Your task to perform on an android device: Add bose soundlink to the cart on amazon.com Image 0: 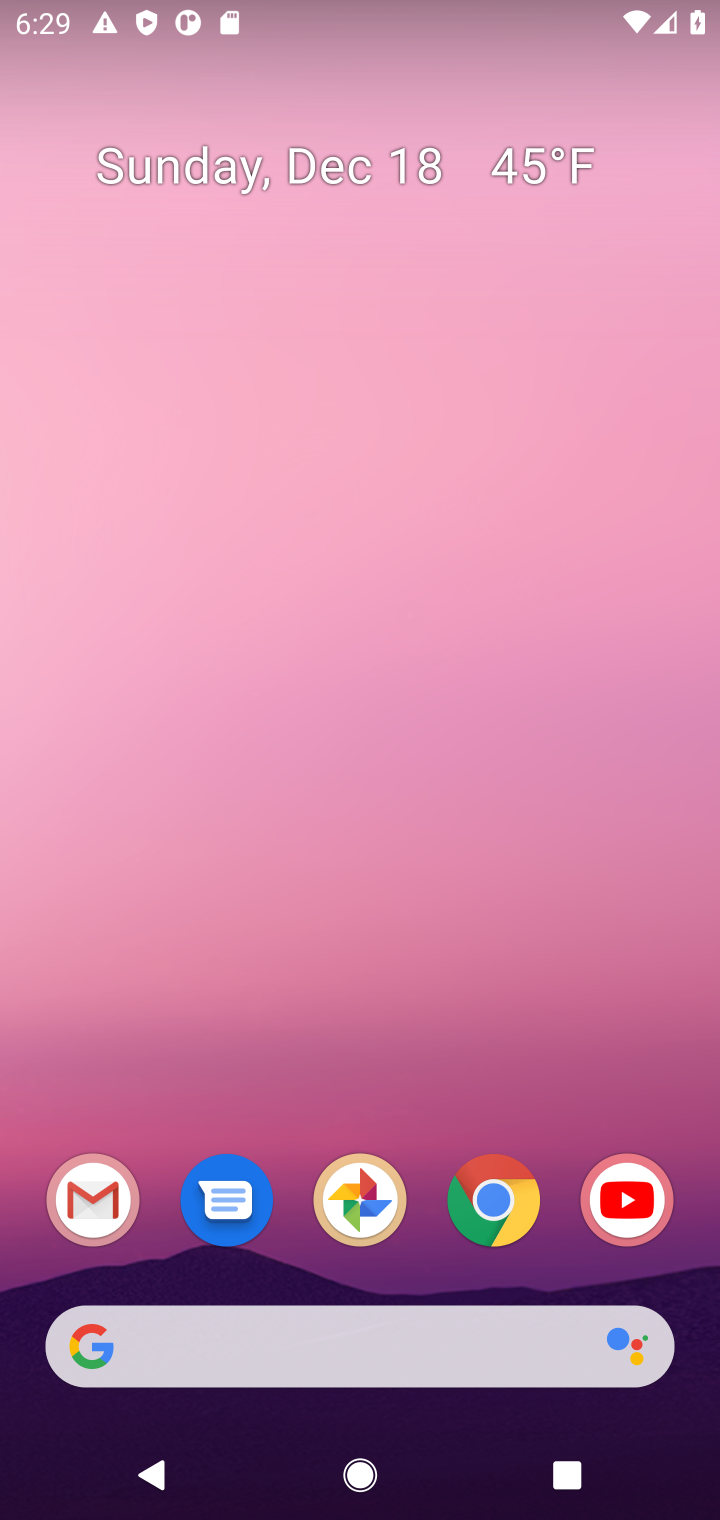
Step 0: click (503, 1220)
Your task to perform on an android device: Add bose soundlink to the cart on amazon.com Image 1: 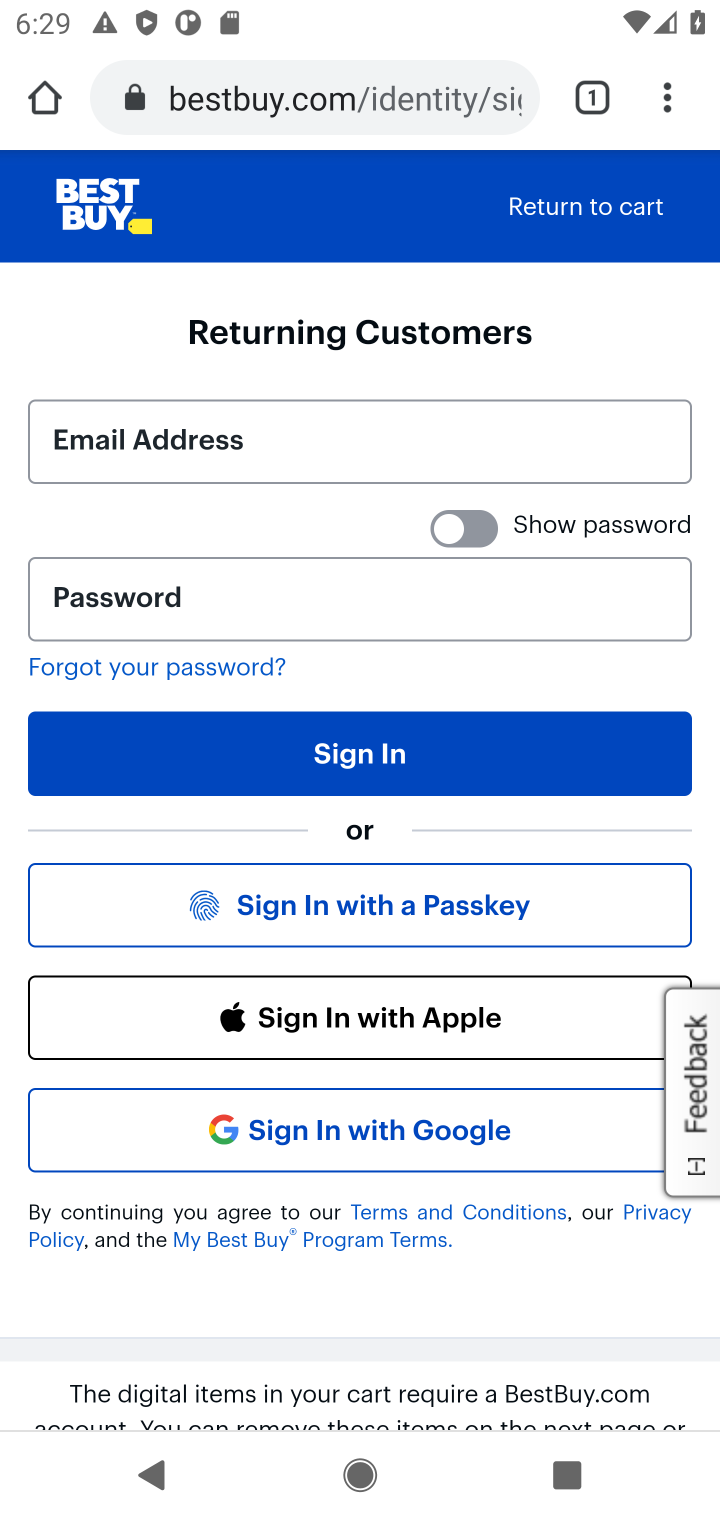
Step 1: click (256, 110)
Your task to perform on an android device: Add bose soundlink to the cart on amazon.com Image 2: 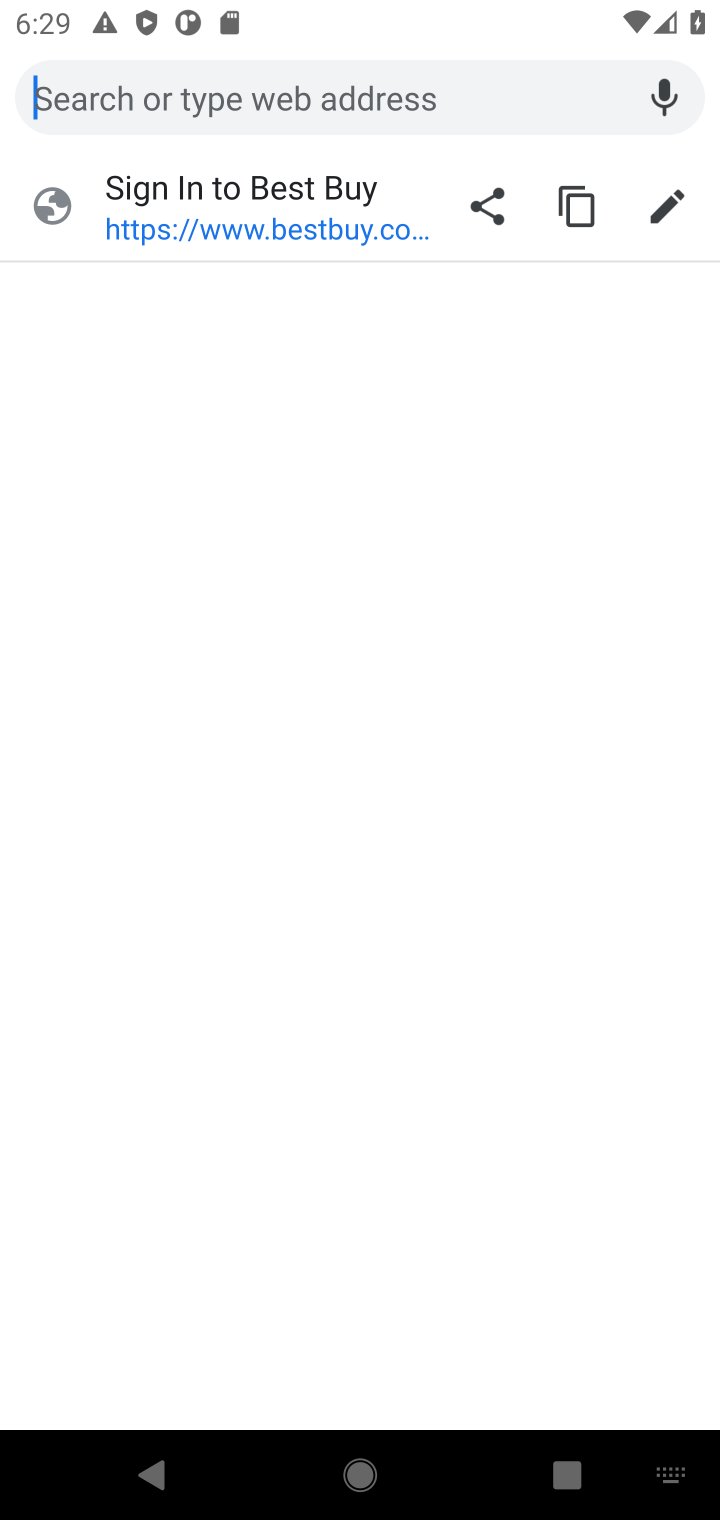
Step 2: type "amazon.com"
Your task to perform on an android device: Add bose soundlink to the cart on amazon.com Image 3: 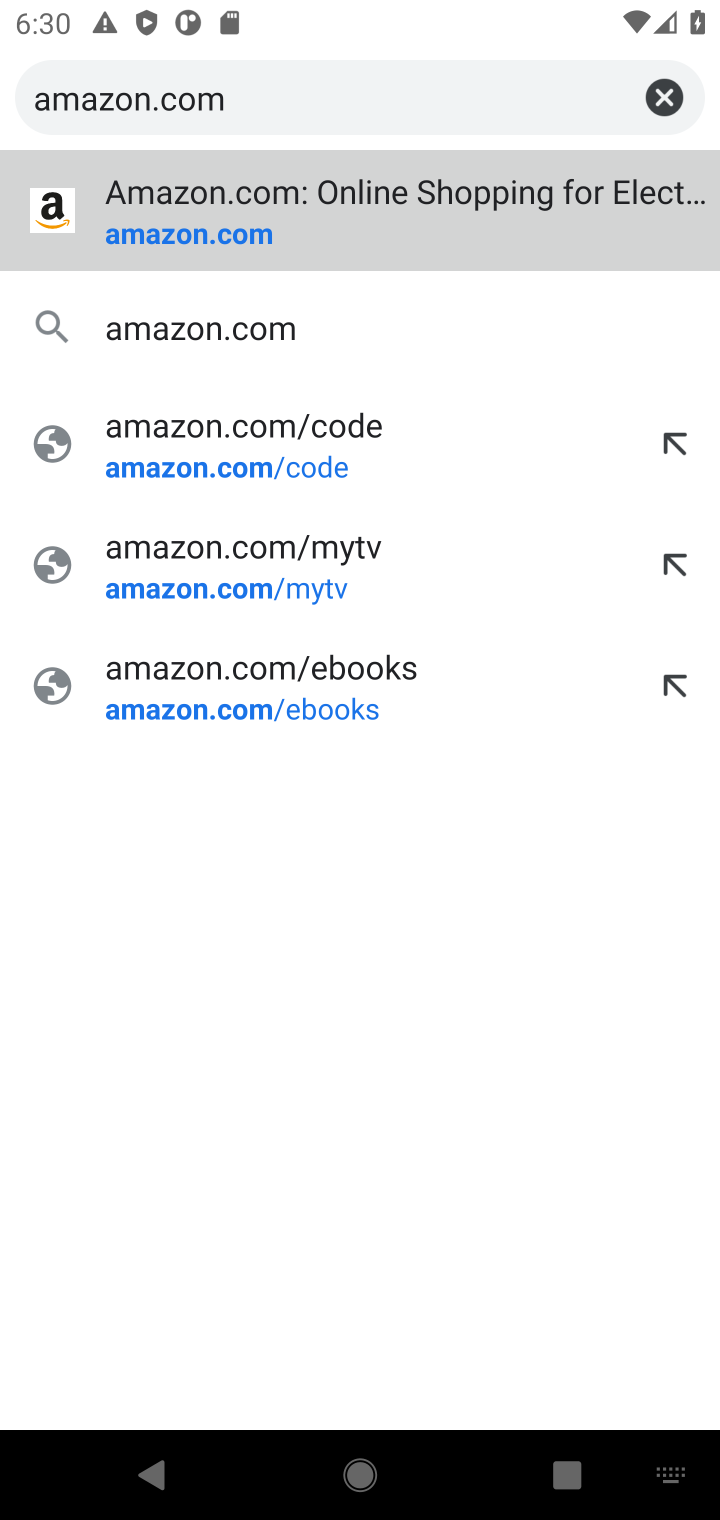
Step 3: click (150, 244)
Your task to perform on an android device: Add bose soundlink to the cart on amazon.com Image 4: 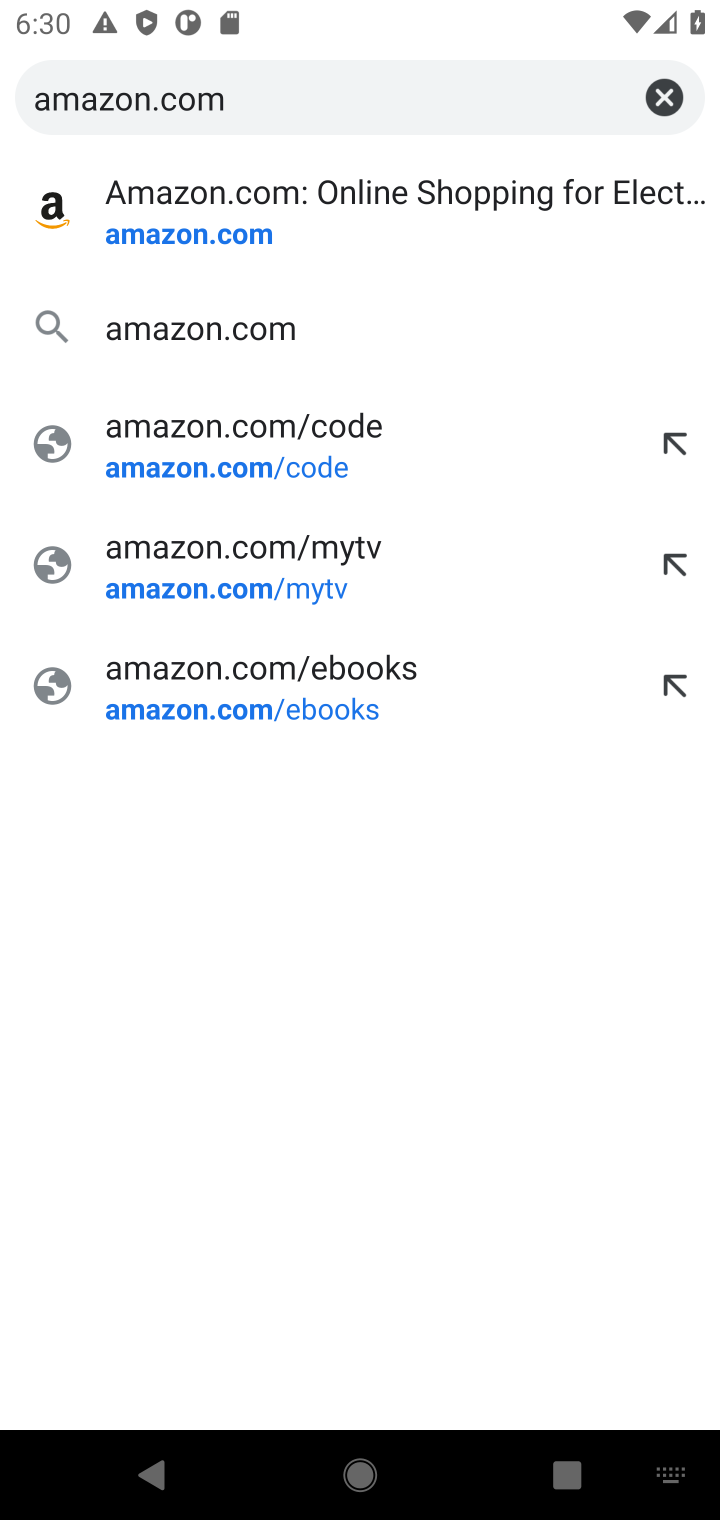
Step 4: click (150, 244)
Your task to perform on an android device: Add bose soundlink to the cart on amazon.com Image 5: 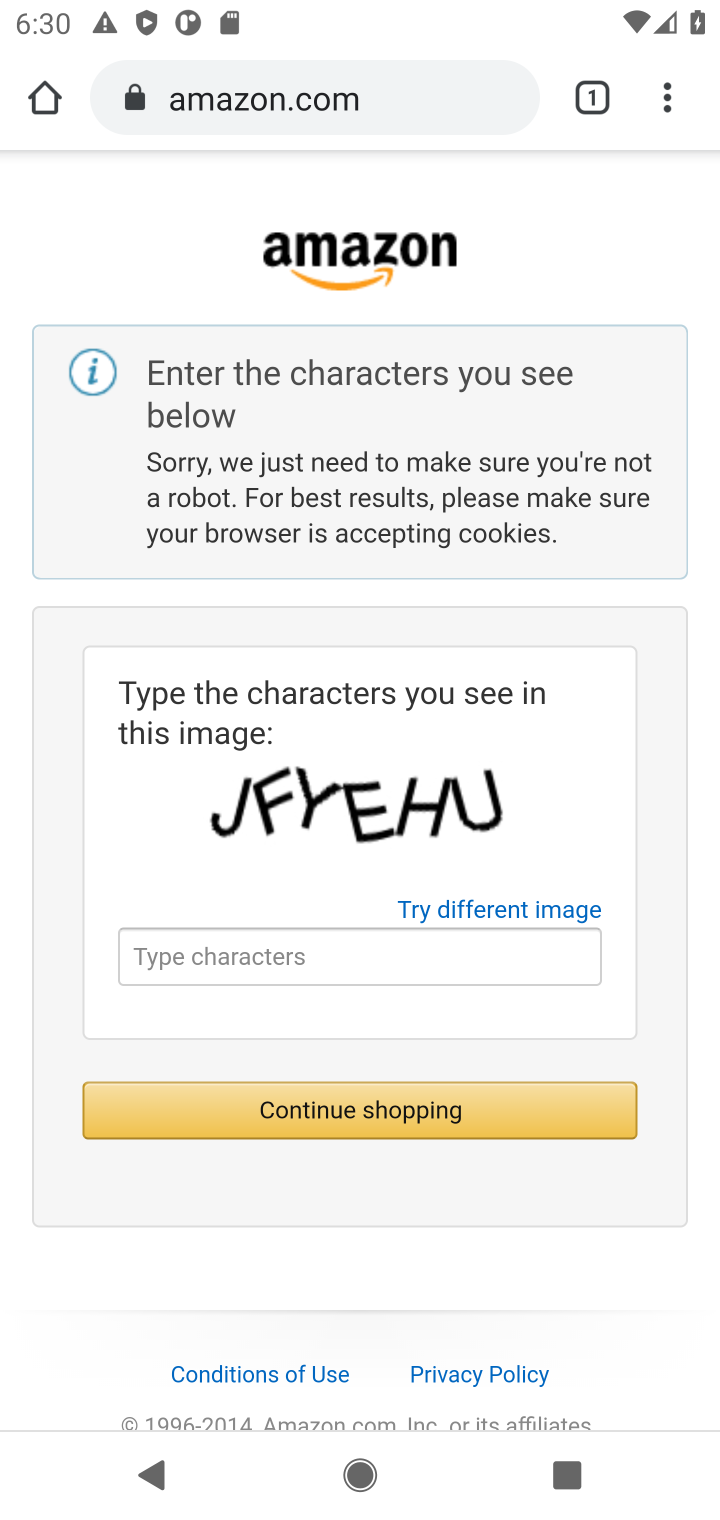
Step 5: click (226, 961)
Your task to perform on an android device: Add bose soundlink to the cart on amazon.com Image 6: 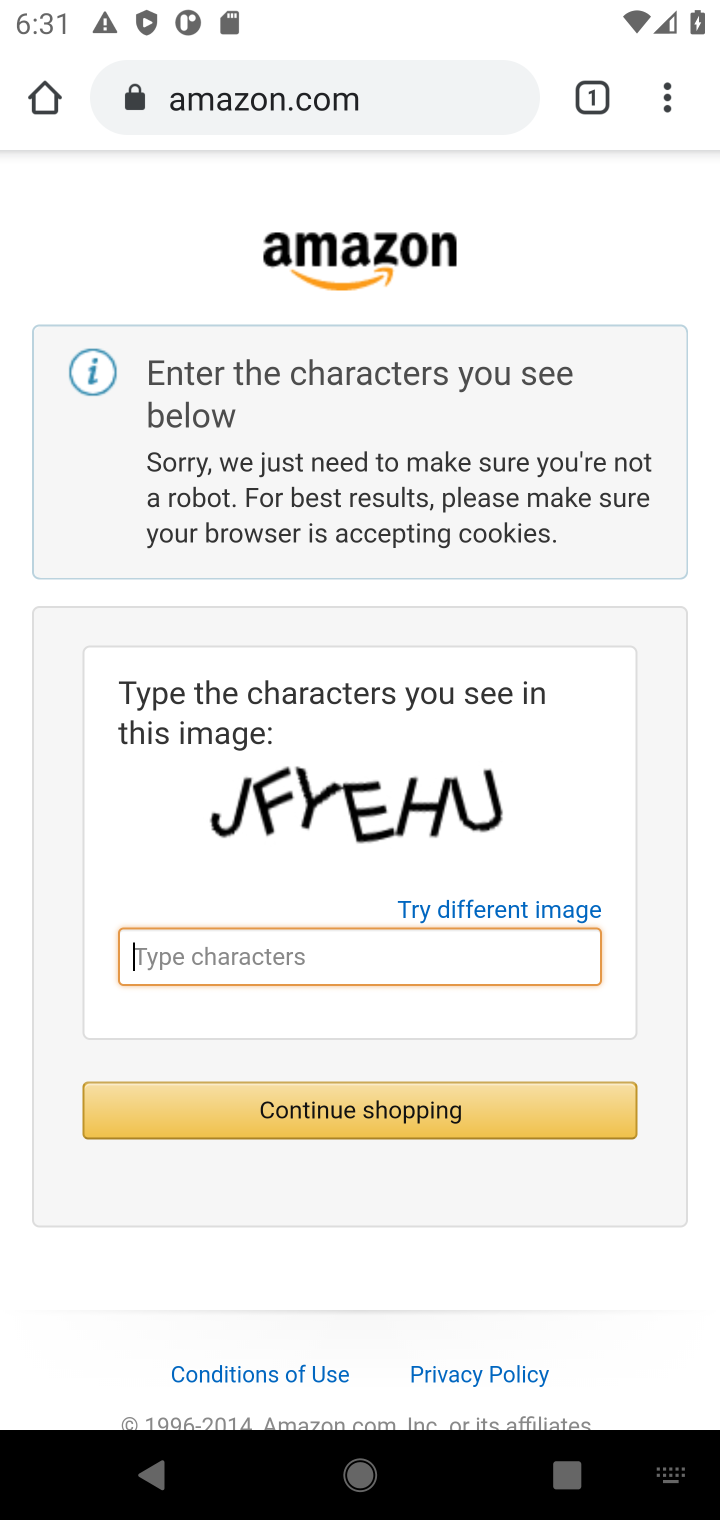
Step 6: type "JFYEHU"
Your task to perform on an android device: Add bose soundlink to the cart on amazon.com Image 7: 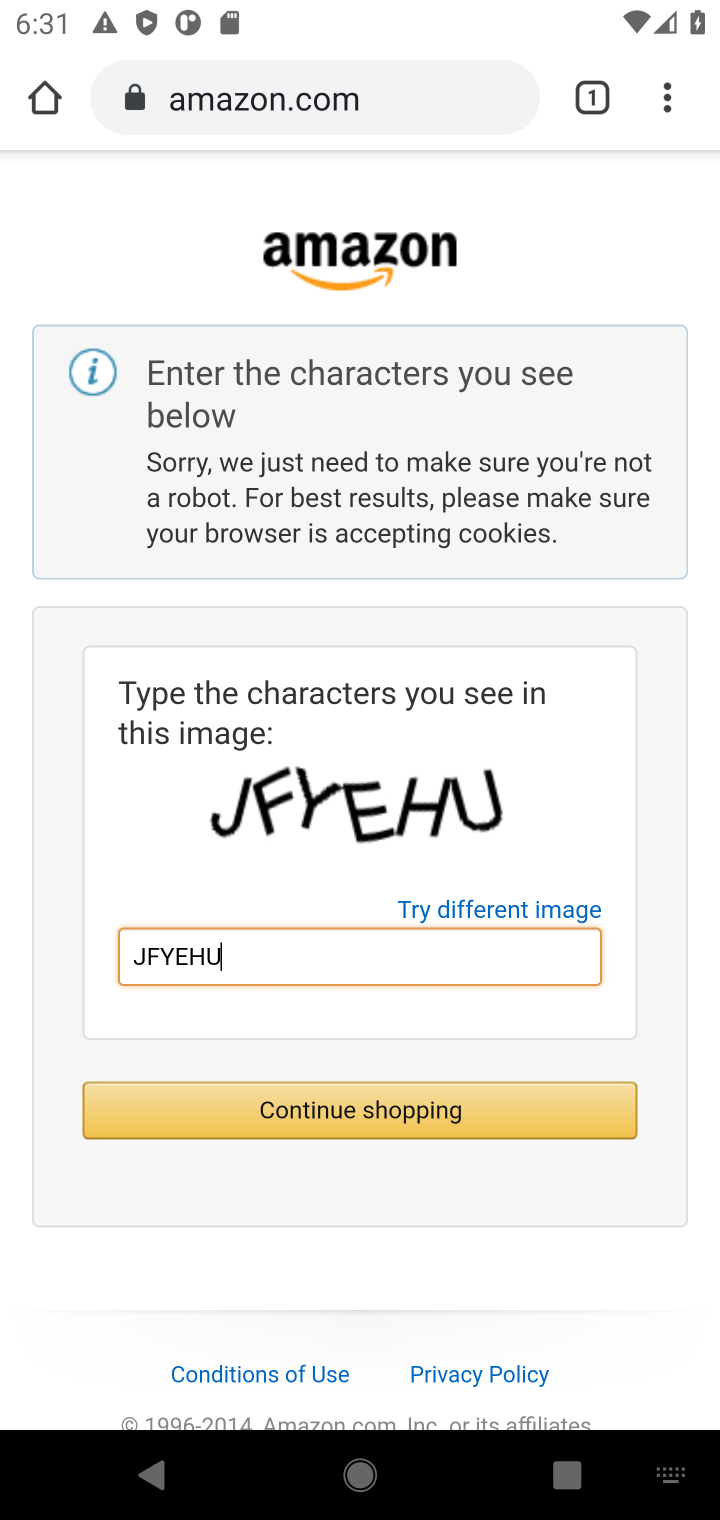
Step 7: click (459, 1127)
Your task to perform on an android device: Add bose soundlink to the cart on amazon.com Image 8: 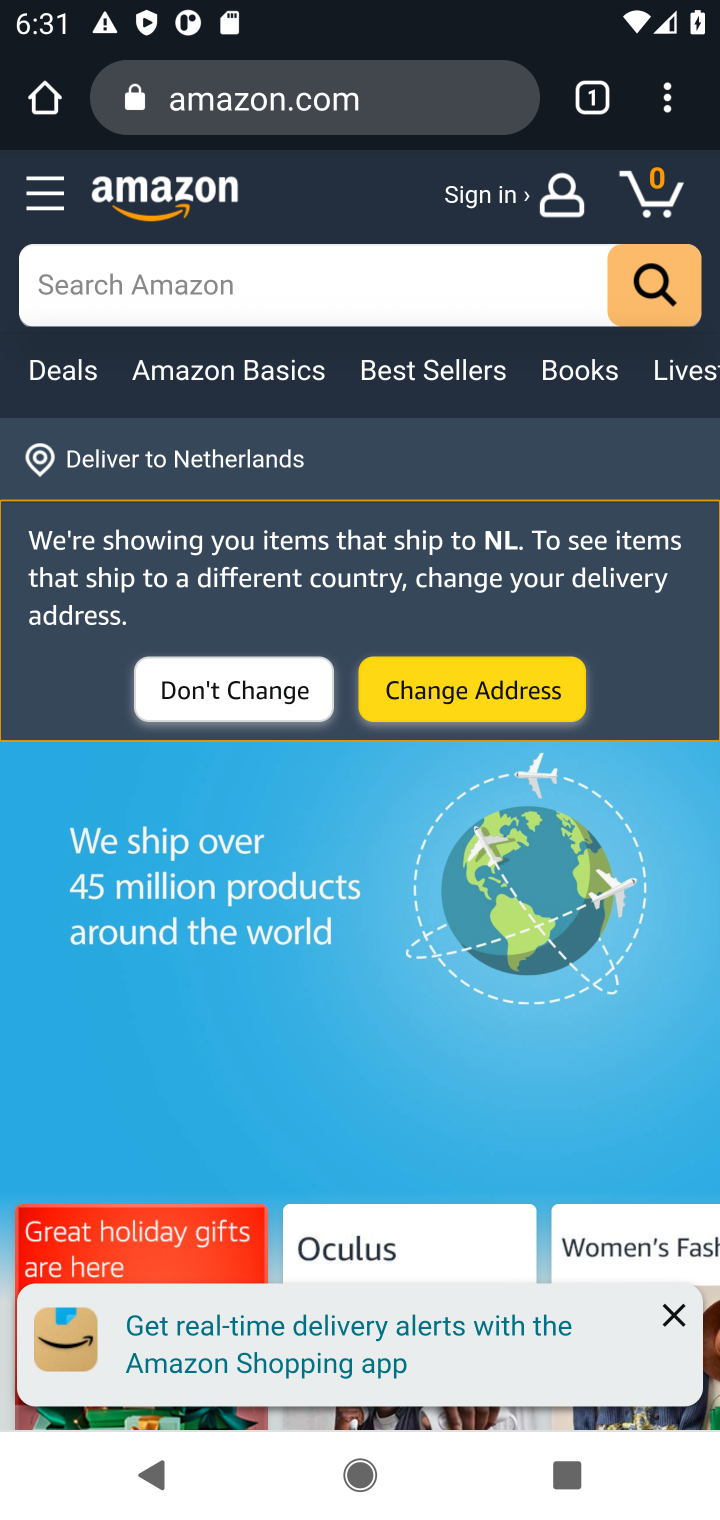
Step 8: click (152, 260)
Your task to perform on an android device: Add bose soundlink to the cart on amazon.com Image 9: 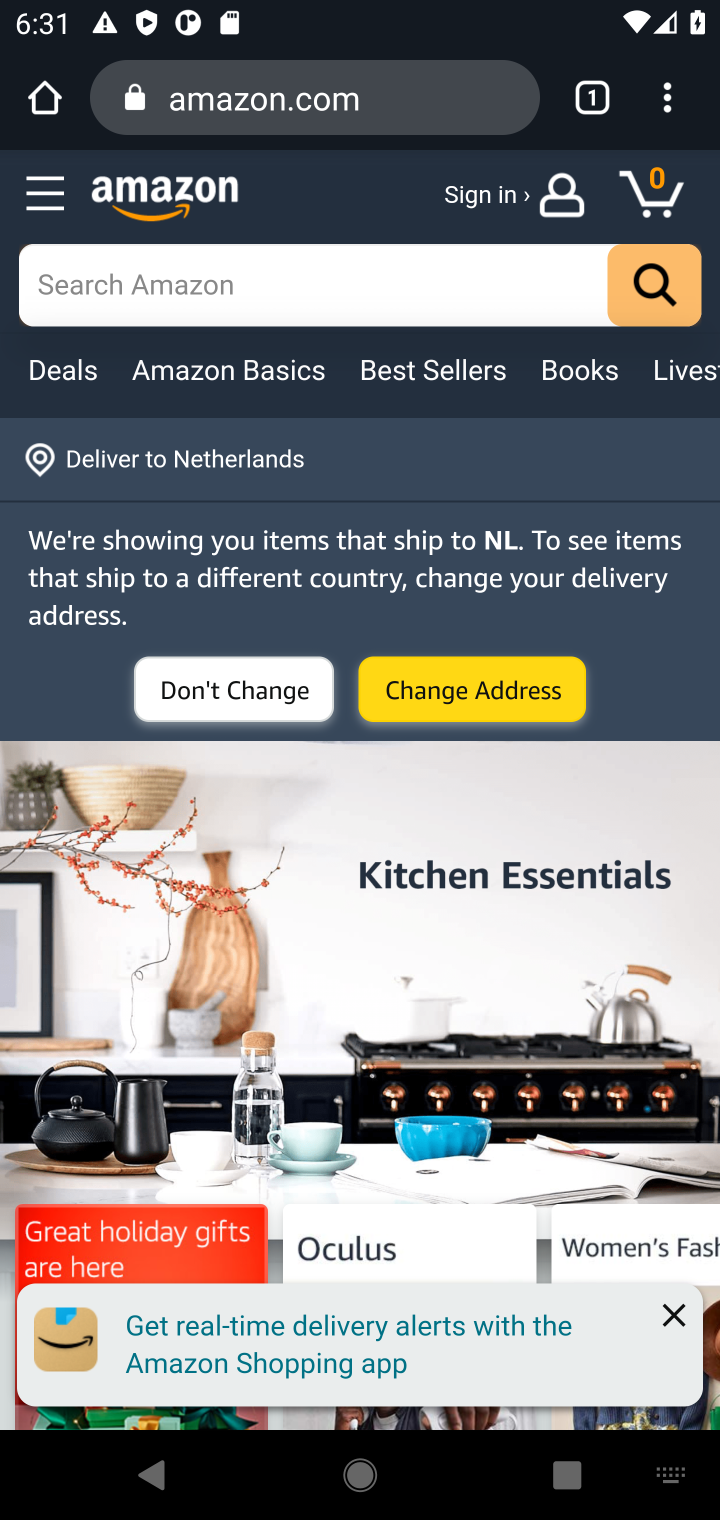
Step 9: type " bose soundlink"
Your task to perform on an android device: Add bose soundlink to the cart on amazon.com Image 10: 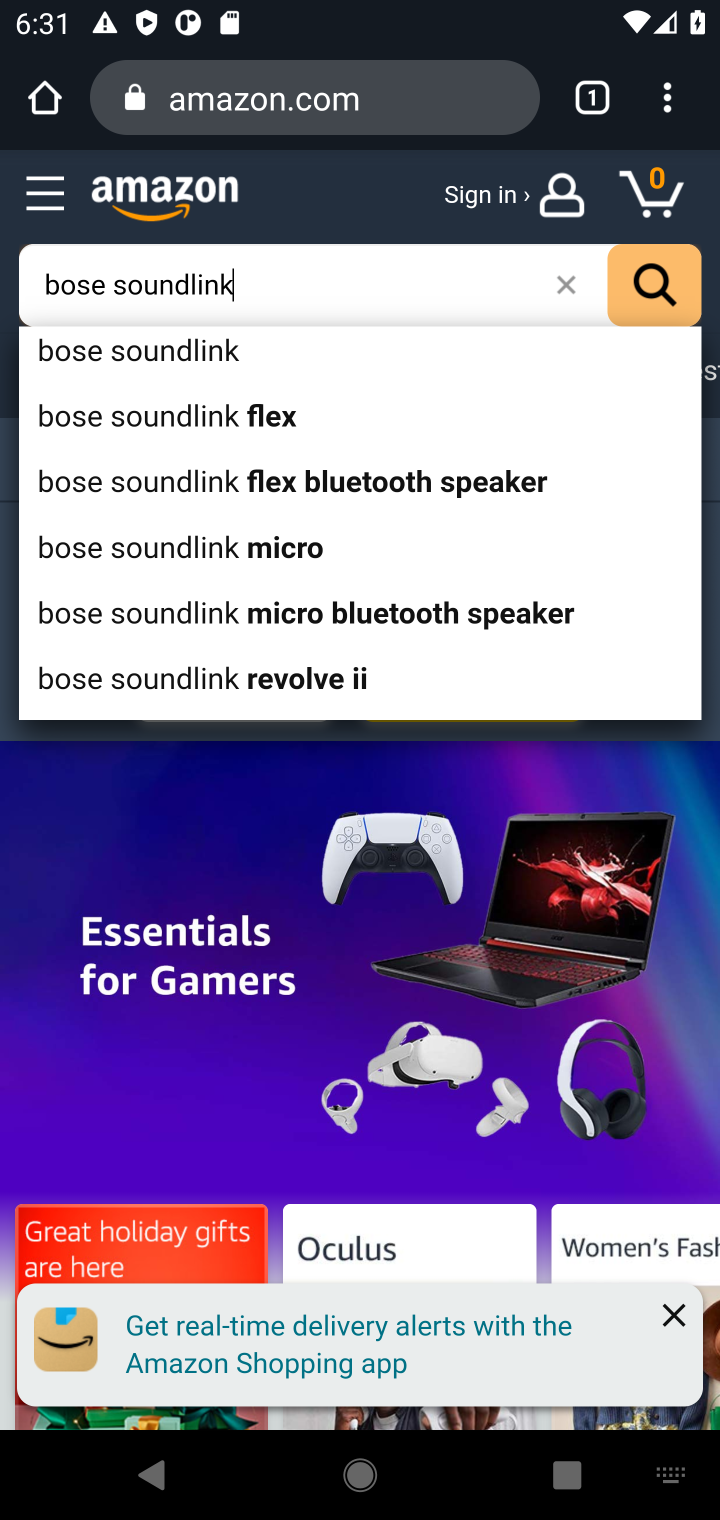
Step 10: click (226, 364)
Your task to perform on an android device: Add bose soundlink to the cart on amazon.com Image 11: 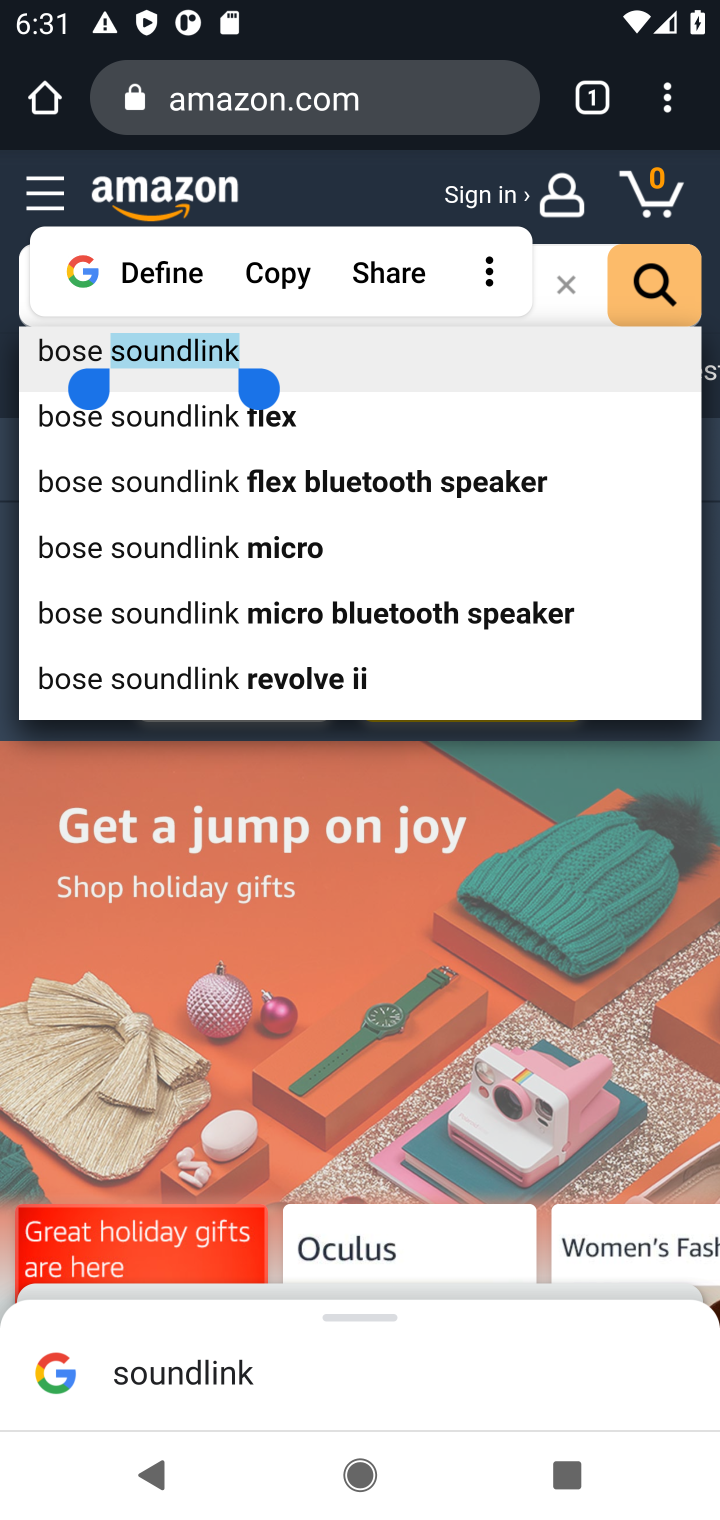
Step 11: click (149, 356)
Your task to perform on an android device: Add bose soundlink to the cart on amazon.com Image 12: 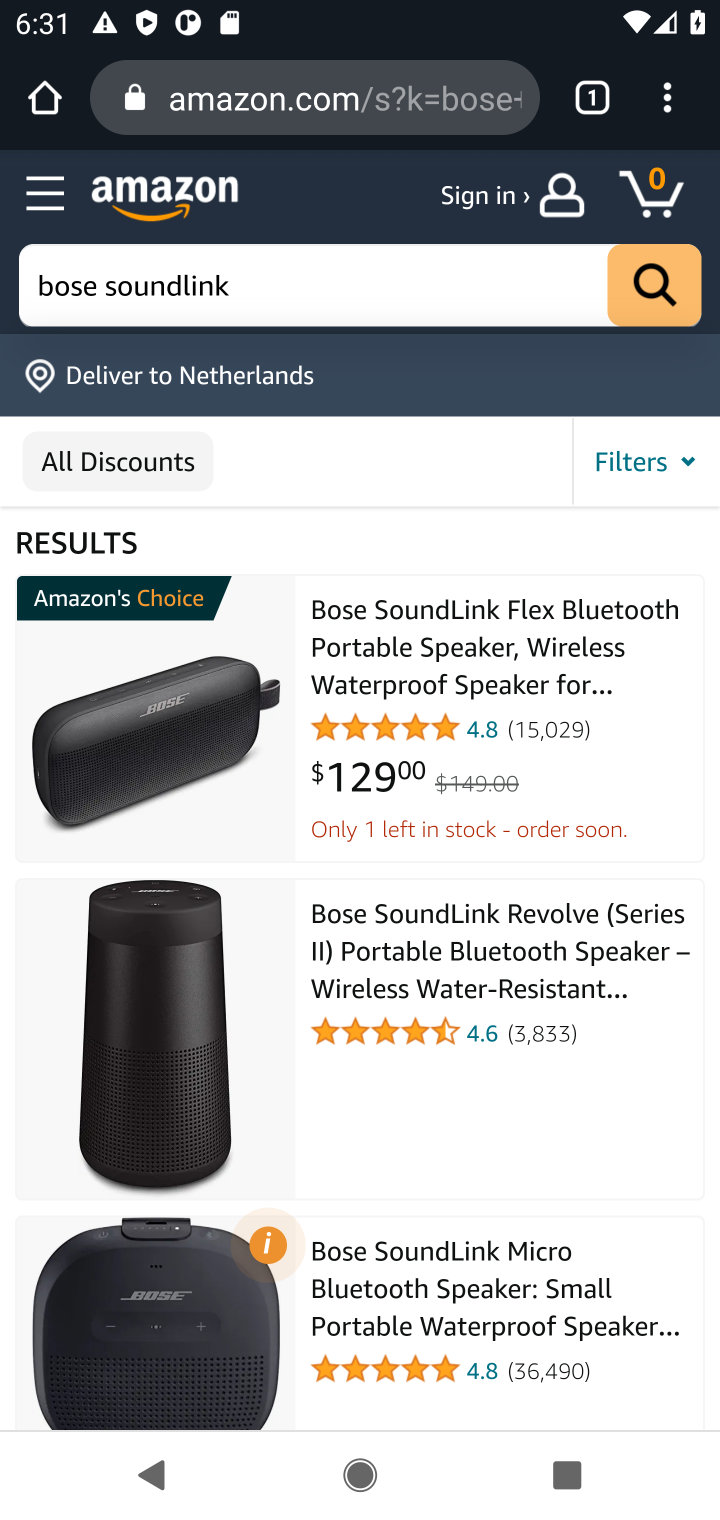
Step 12: click (356, 674)
Your task to perform on an android device: Add bose soundlink to the cart on amazon.com Image 13: 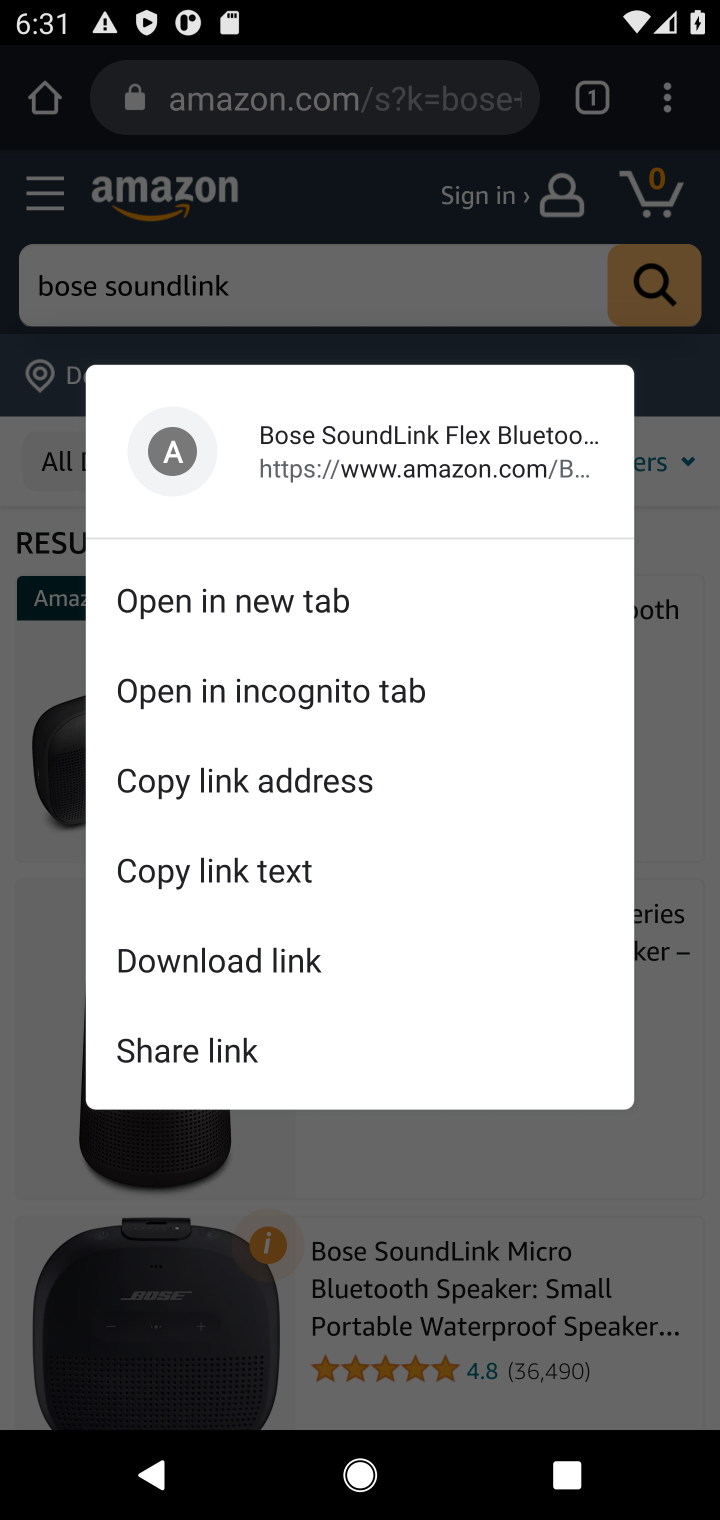
Step 13: click (687, 724)
Your task to perform on an android device: Add bose soundlink to the cart on amazon.com Image 14: 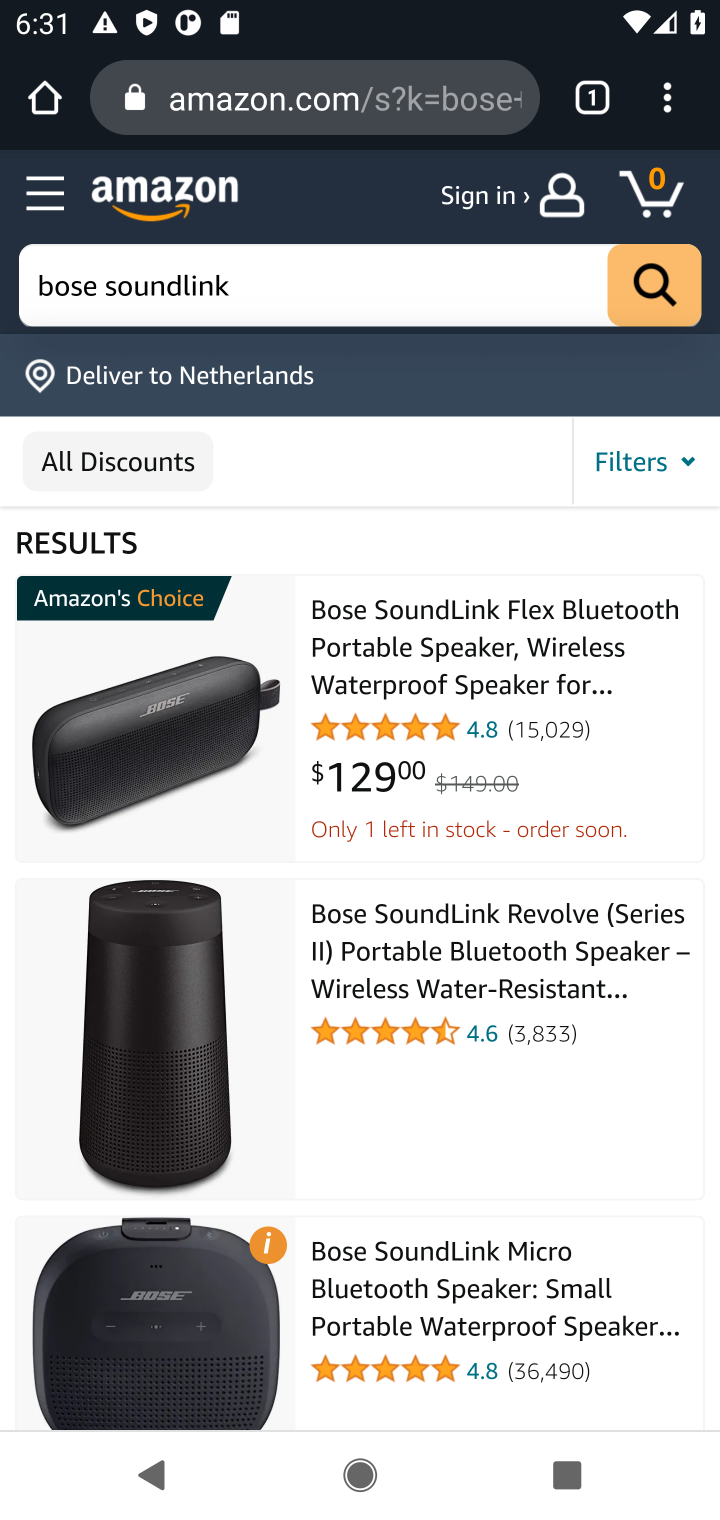
Step 14: click (492, 637)
Your task to perform on an android device: Add bose soundlink to the cart on amazon.com Image 15: 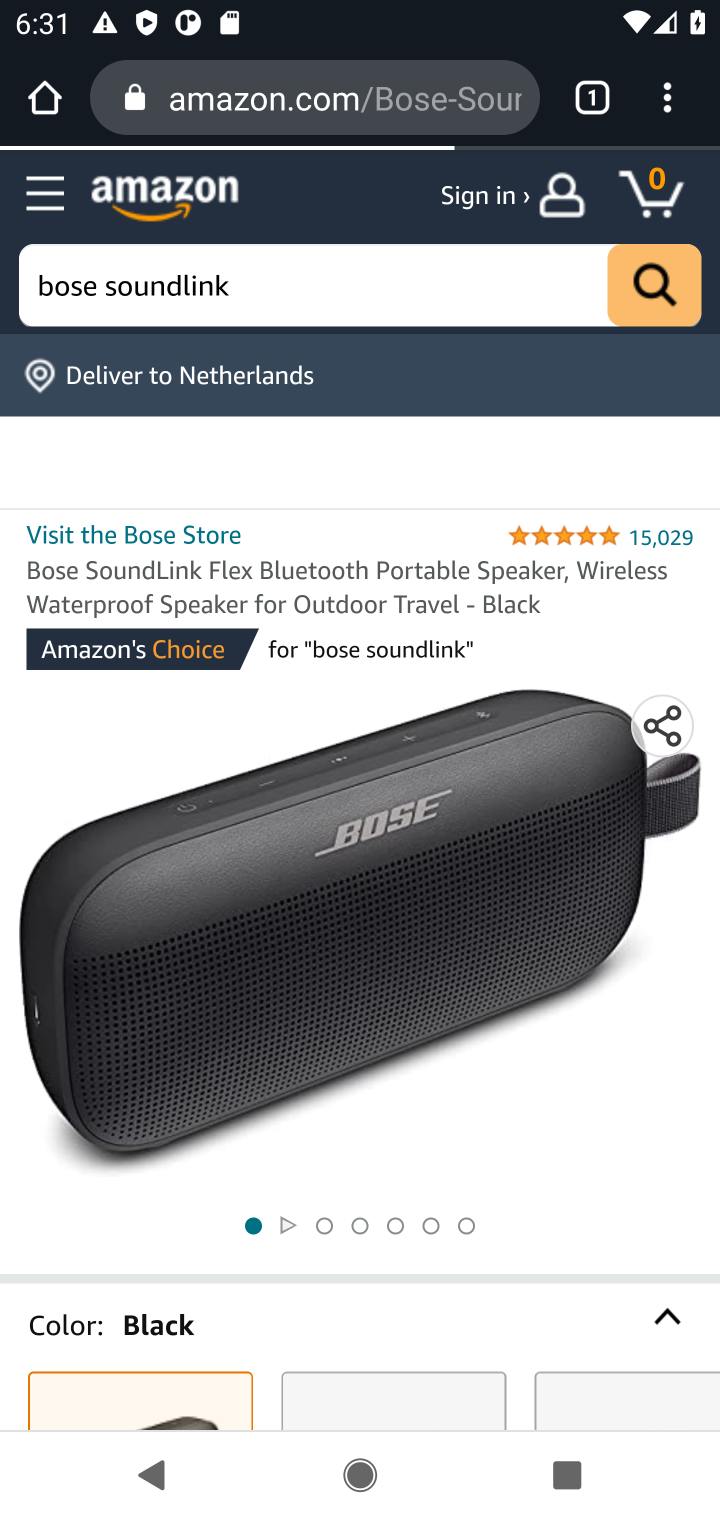
Step 15: drag from (444, 1282) to (460, 623)
Your task to perform on an android device: Add bose soundlink to the cart on amazon.com Image 16: 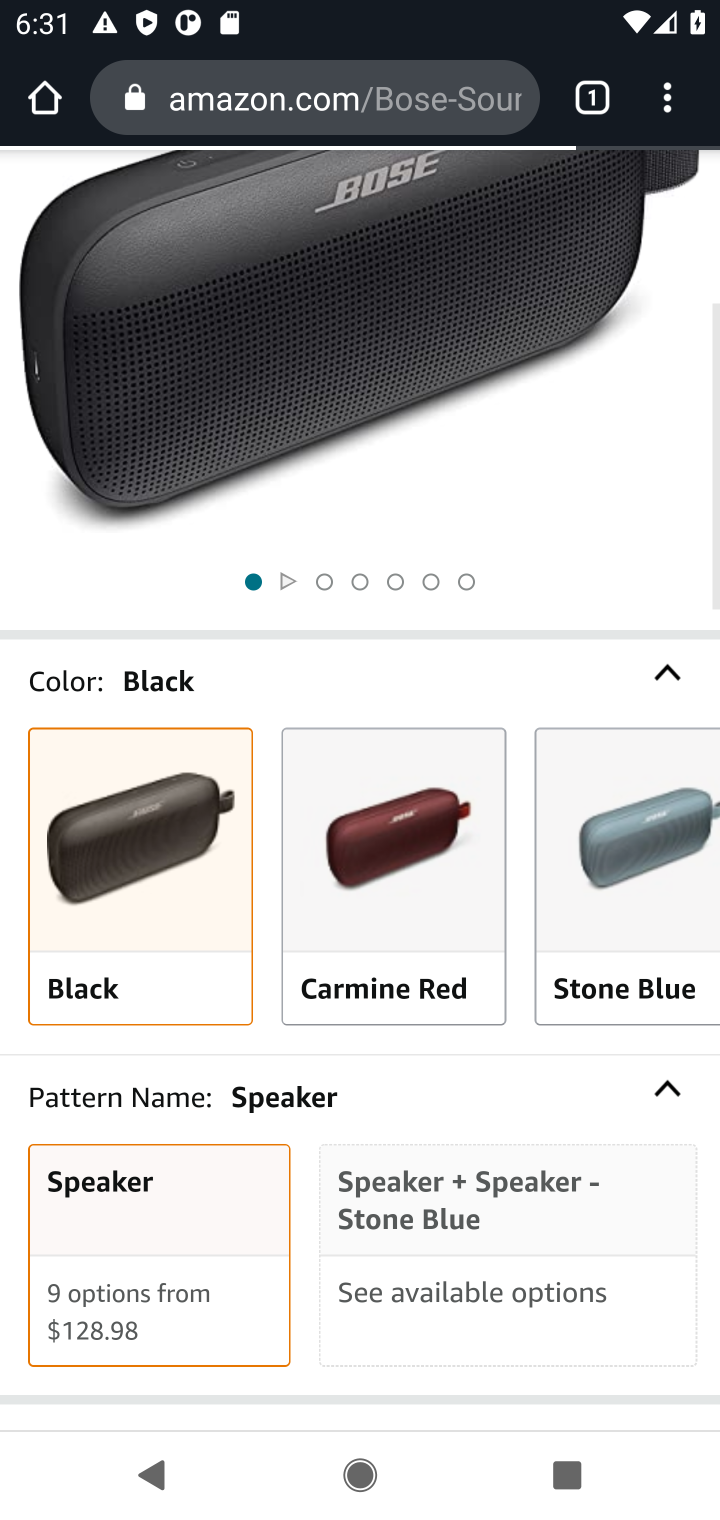
Step 16: drag from (410, 1211) to (414, 610)
Your task to perform on an android device: Add bose soundlink to the cart on amazon.com Image 17: 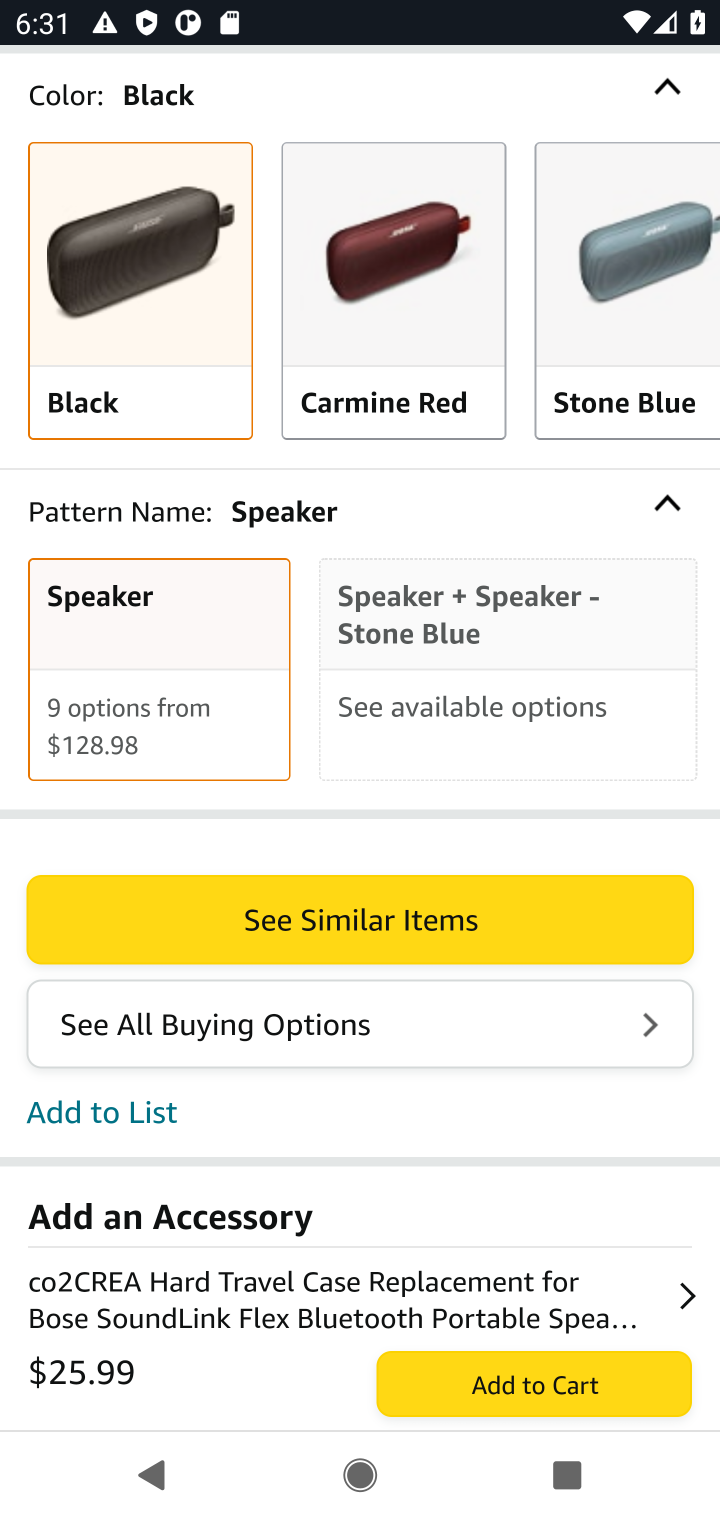
Step 17: press back button
Your task to perform on an android device: Add bose soundlink to the cart on amazon.com Image 18: 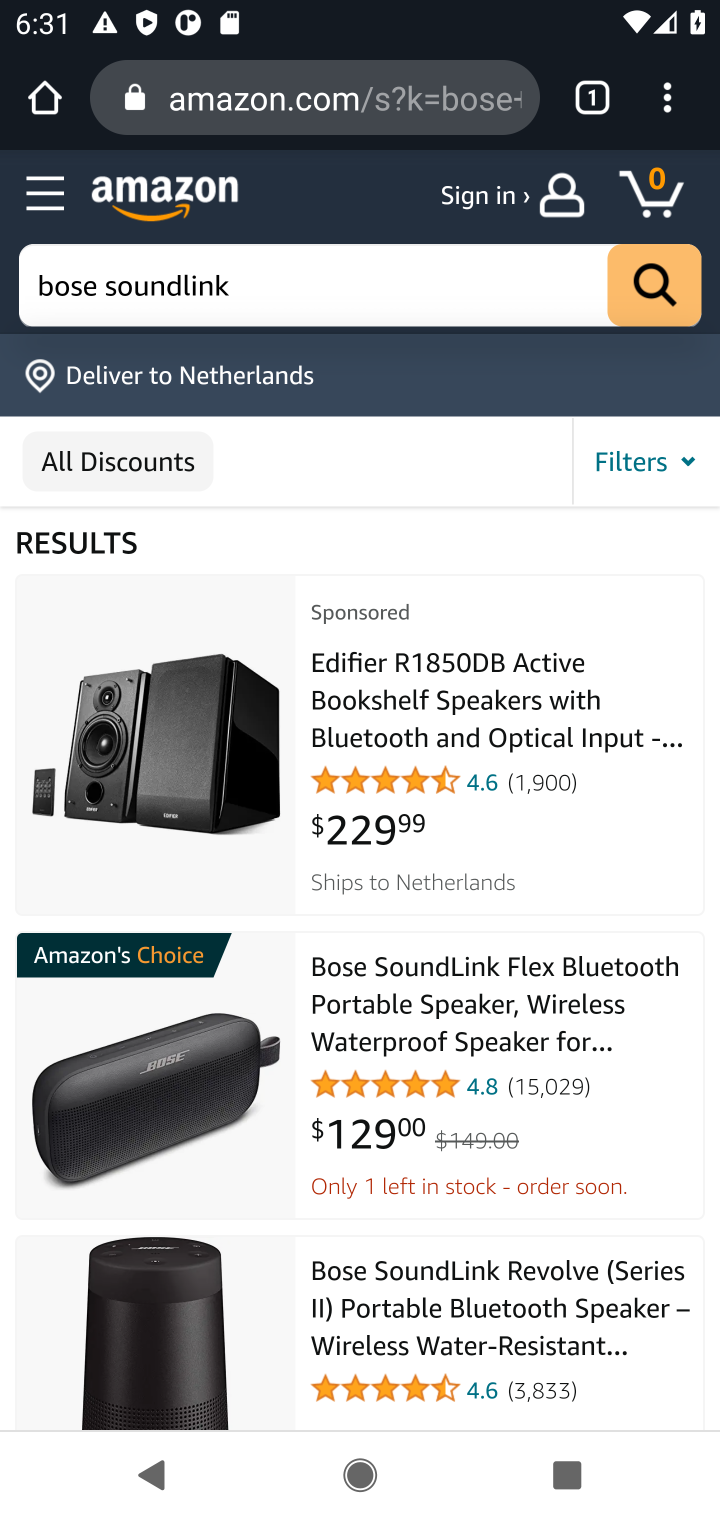
Step 18: drag from (251, 1101) to (228, 748)
Your task to perform on an android device: Add bose soundlink to the cart on amazon.com Image 19: 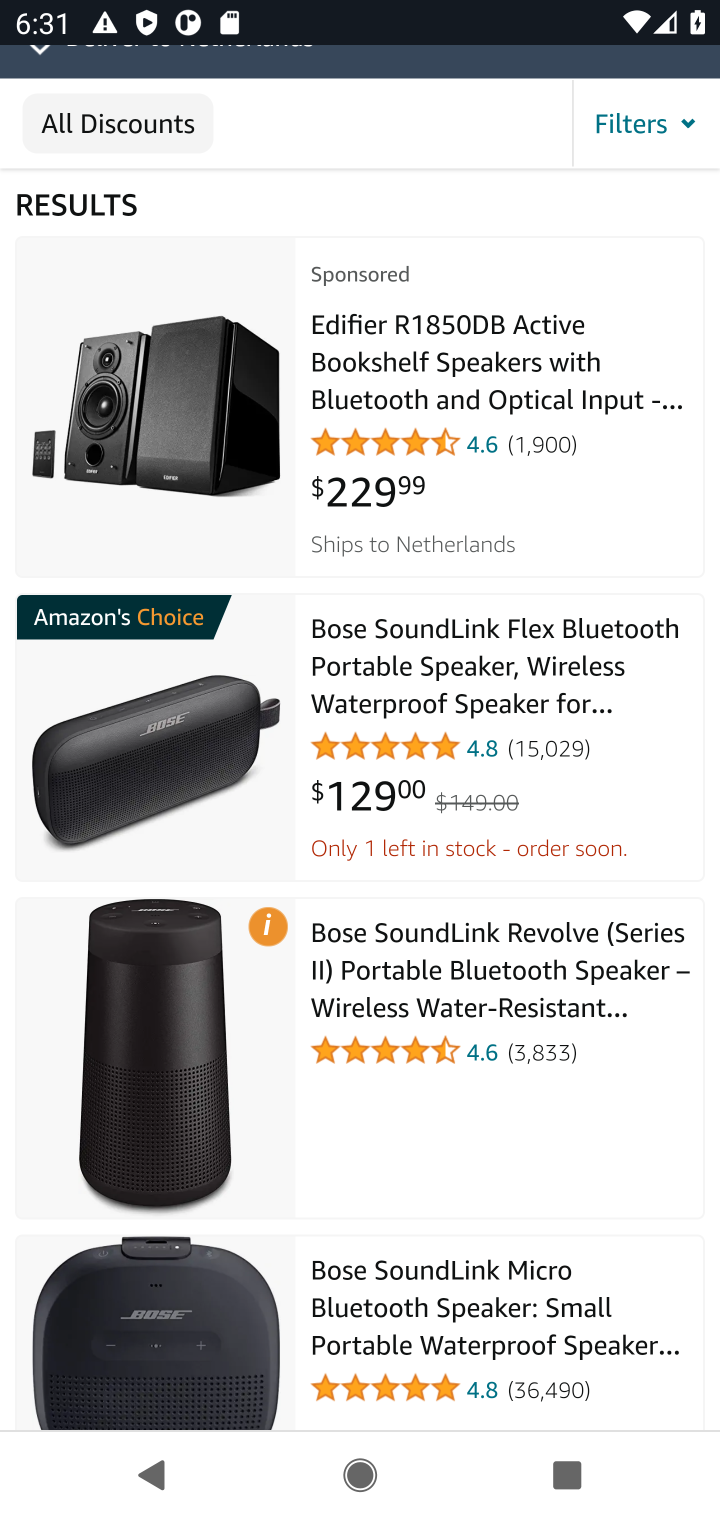
Step 19: drag from (231, 838) to (194, 1135)
Your task to perform on an android device: Add bose soundlink to the cart on amazon.com Image 20: 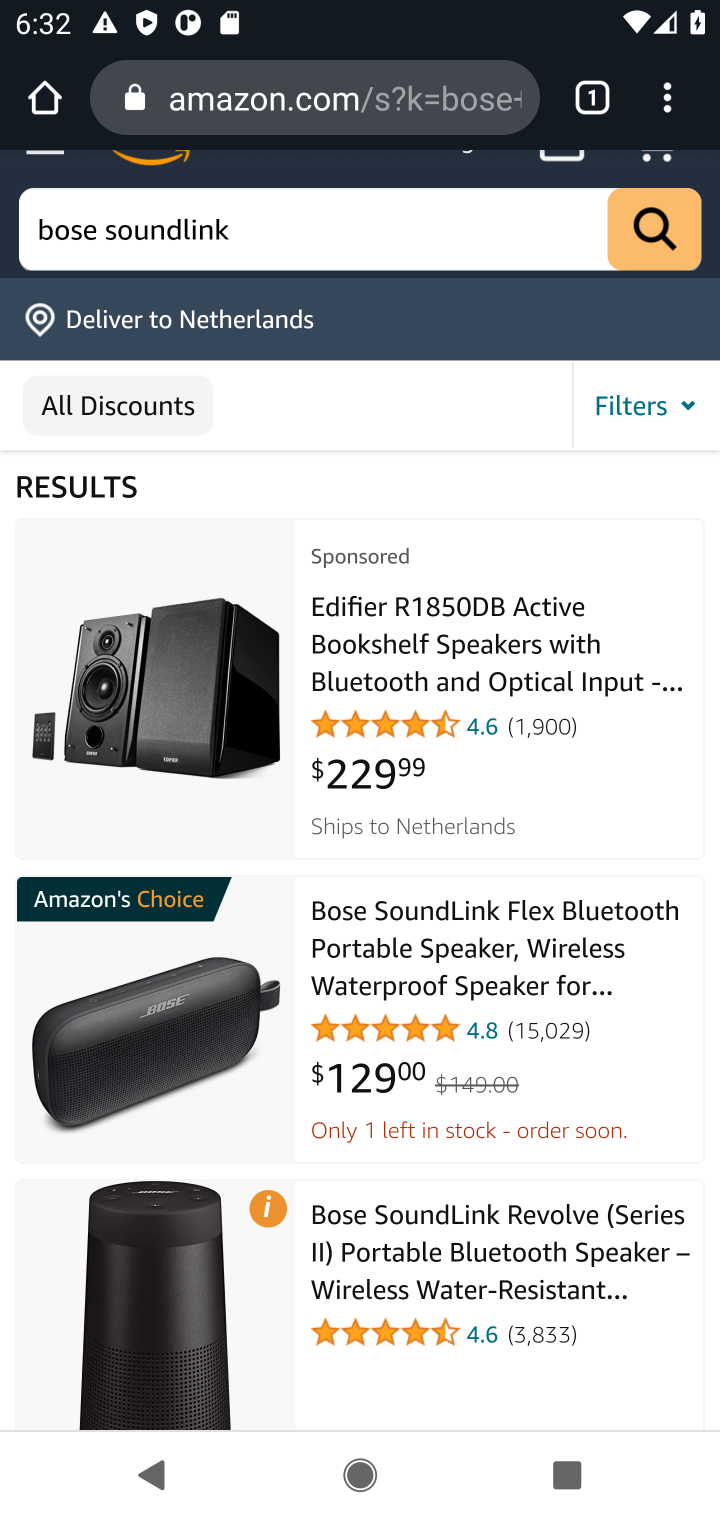
Step 20: drag from (269, 1139) to (314, 591)
Your task to perform on an android device: Add bose soundlink to the cart on amazon.com Image 21: 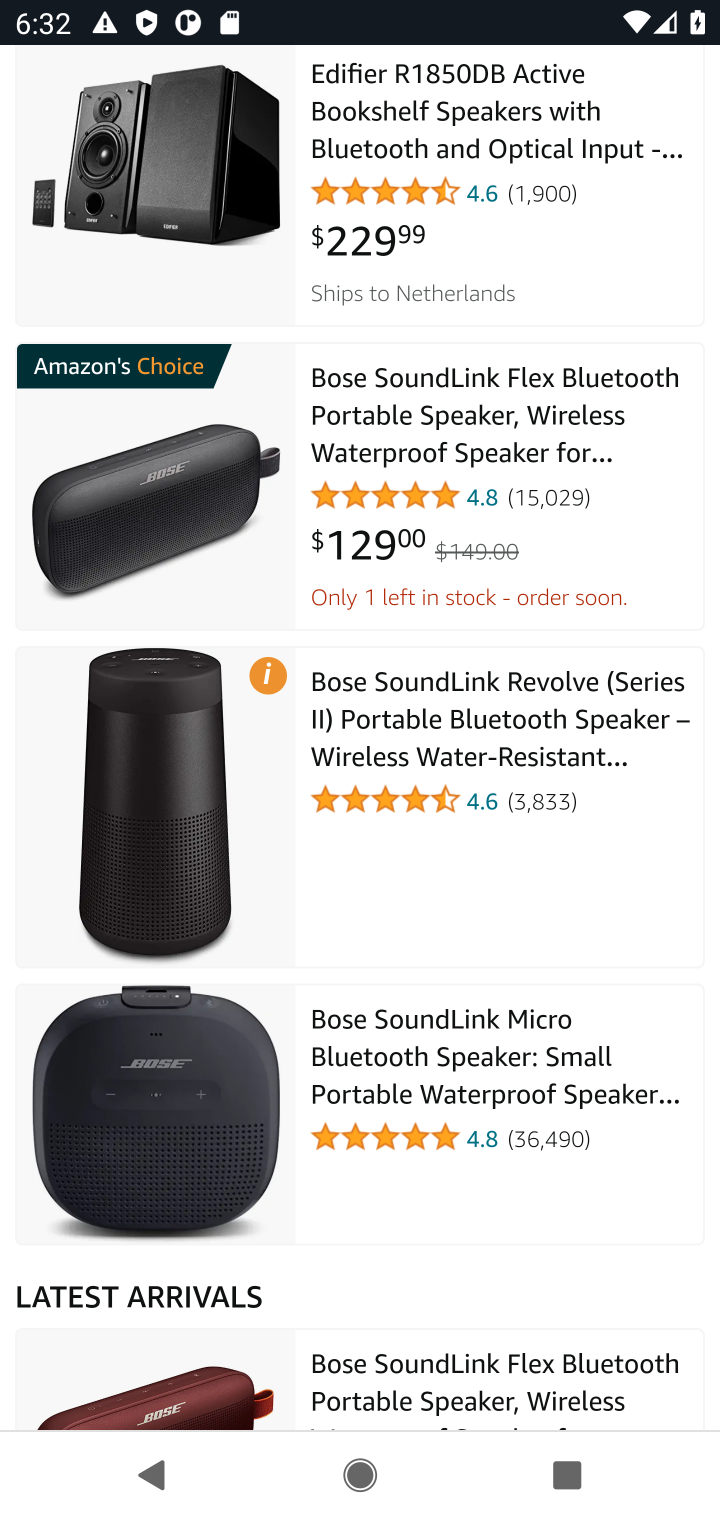
Step 21: drag from (282, 816) to (282, 459)
Your task to perform on an android device: Add bose soundlink to the cart on amazon.com Image 22: 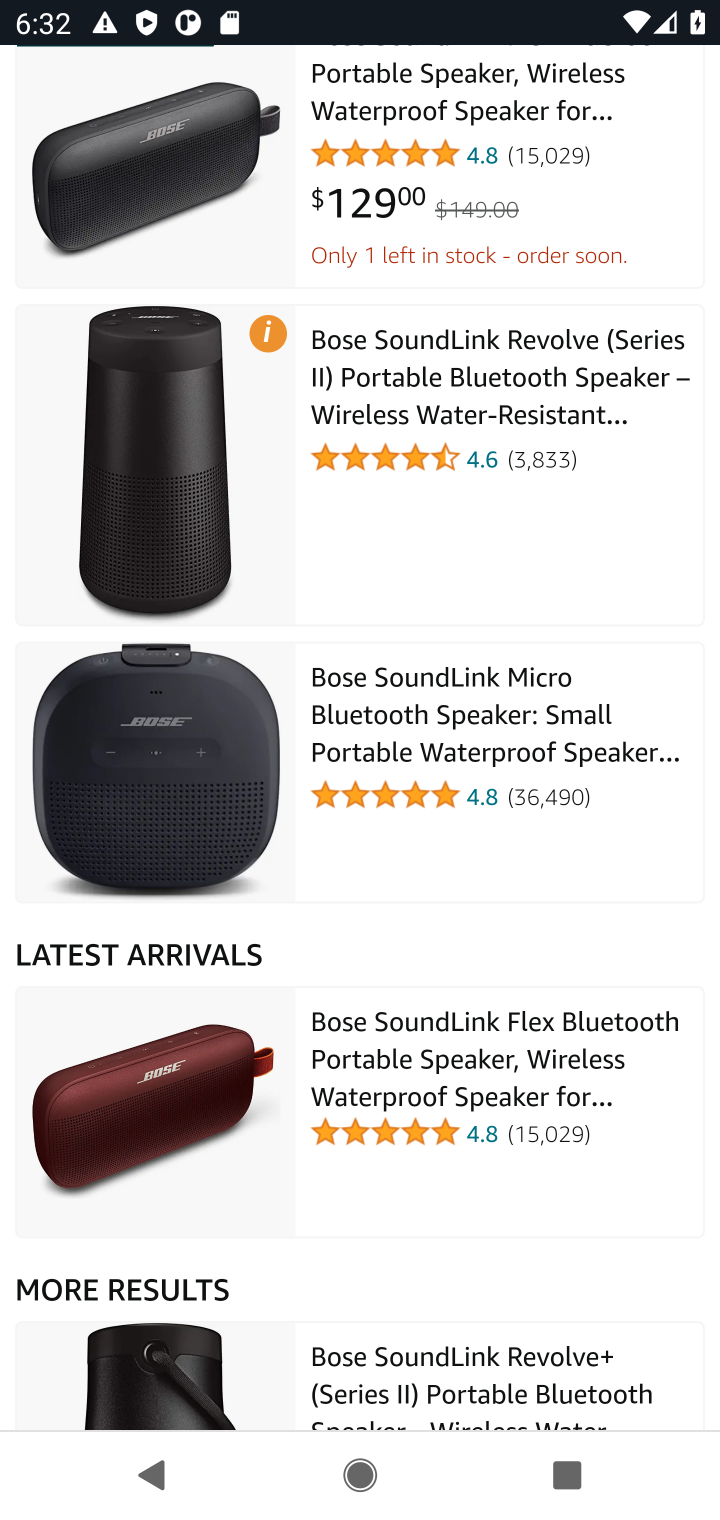
Step 22: drag from (240, 946) to (252, 557)
Your task to perform on an android device: Add bose soundlink to the cart on amazon.com Image 23: 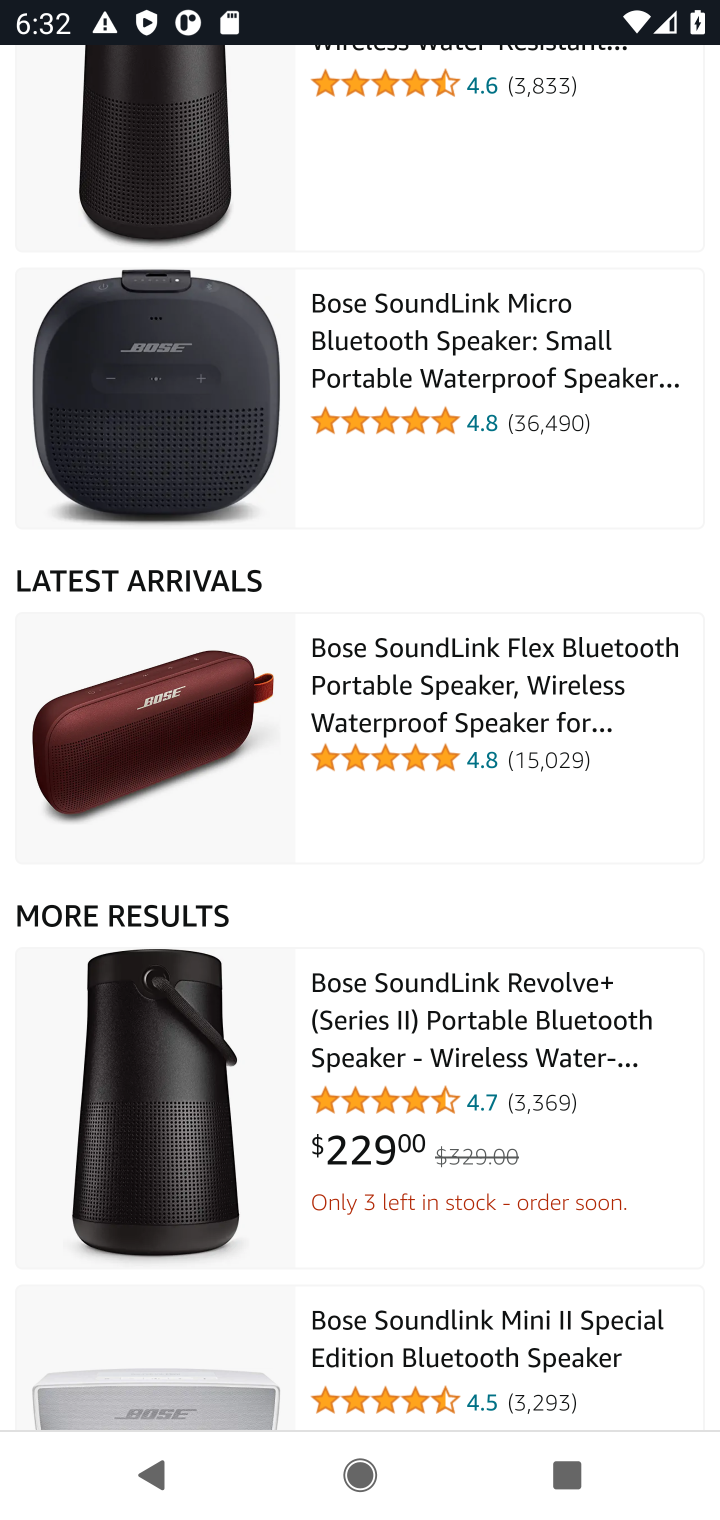
Step 23: drag from (240, 1164) to (268, 499)
Your task to perform on an android device: Add bose soundlink to the cart on amazon.com Image 24: 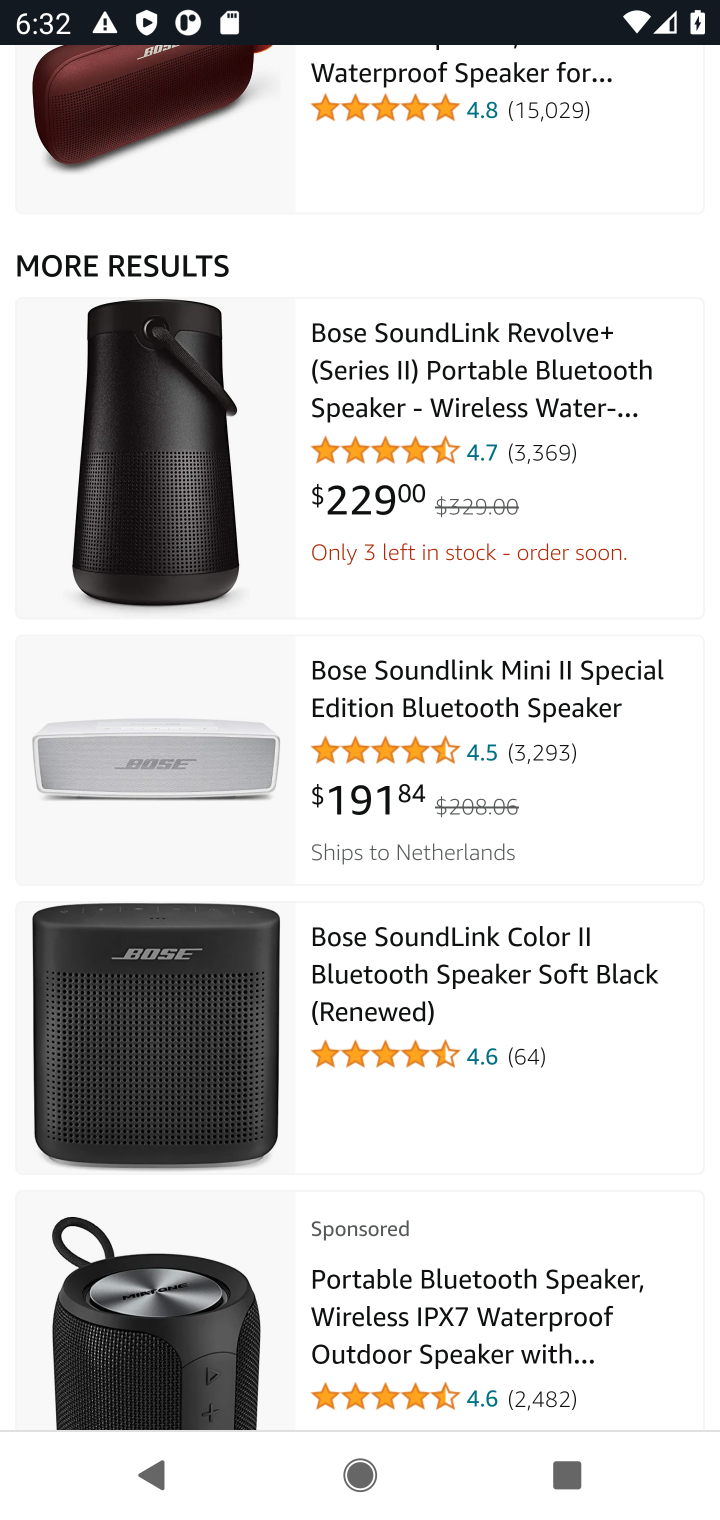
Step 24: click (421, 730)
Your task to perform on an android device: Add bose soundlink to the cart on amazon.com Image 25: 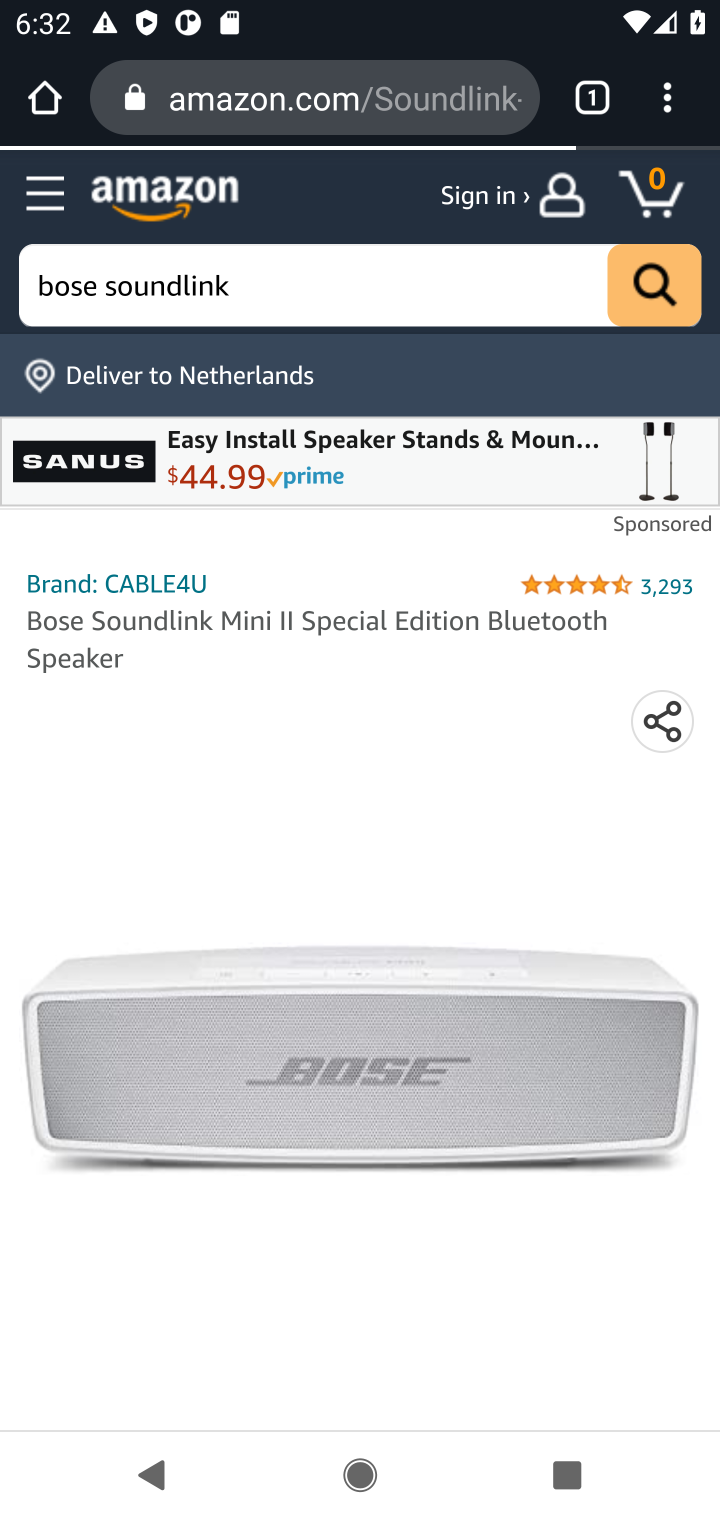
Step 25: drag from (344, 1207) to (347, 483)
Your task to perform on an android device: Add bose soundlink to the cart on amazon.com Image 26: 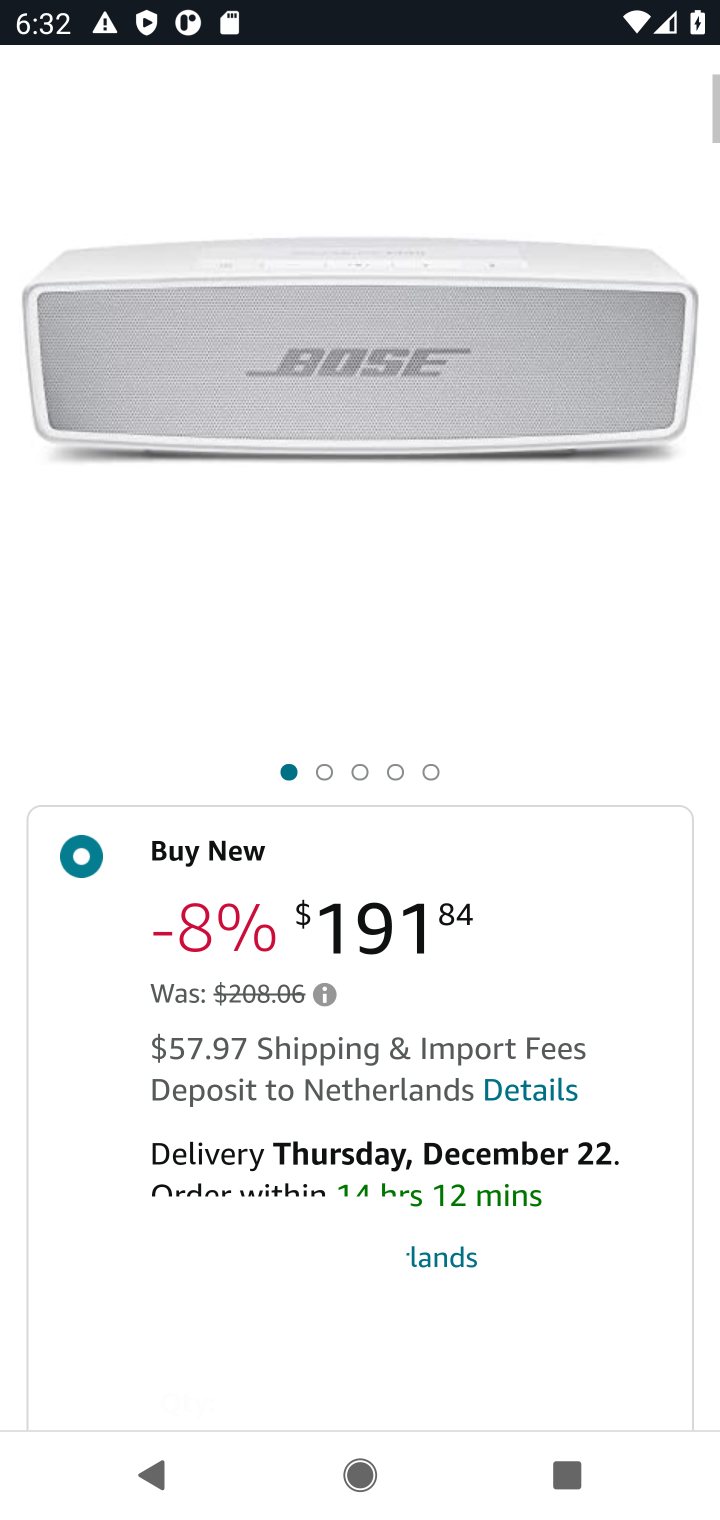
Step 26: drag from (337, 1224) to (317, 456)
Your task to perform on an android device: Add bose soundlink to the cart on amazon.com Image 27: 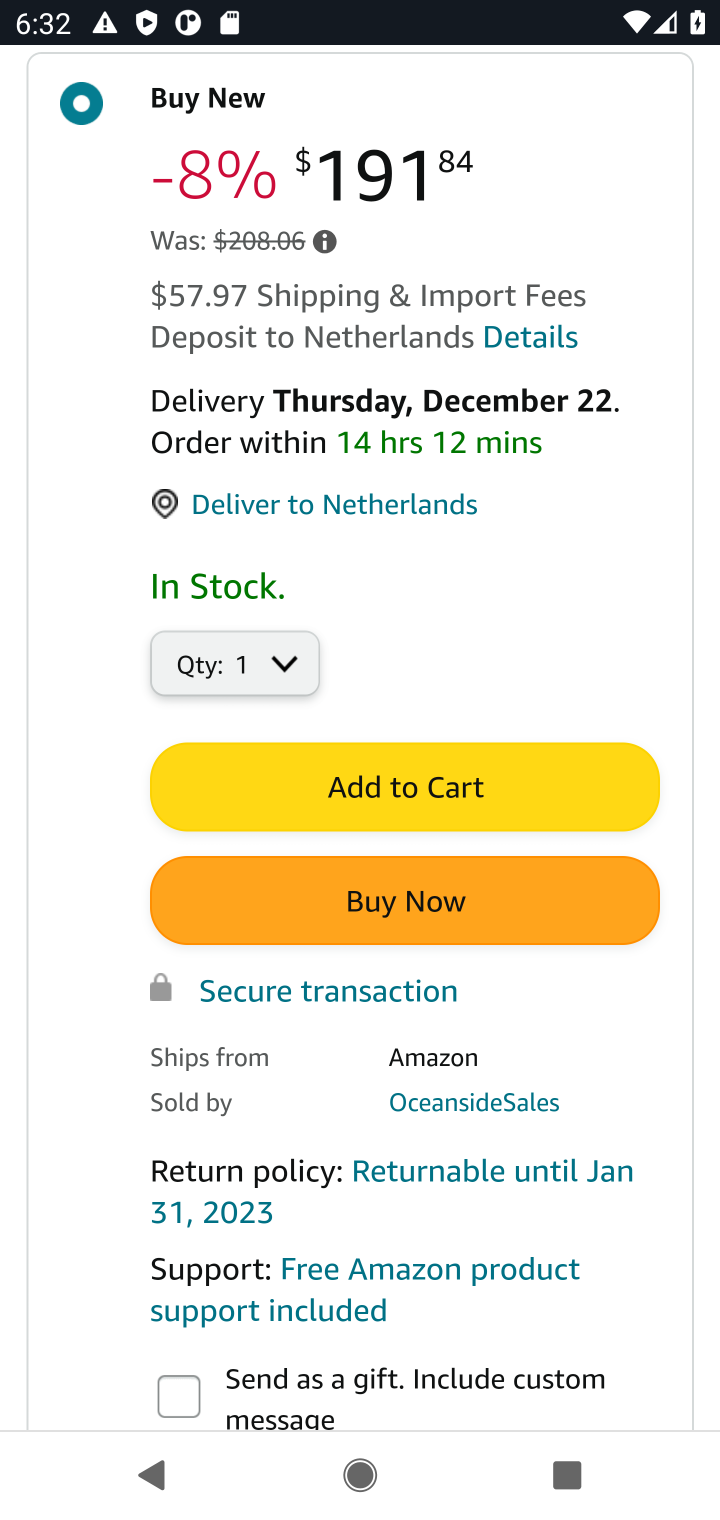
Step 27: click (378, 793)
Your task to perform on an android device: Add bose soundlink to the cart on amazon.com Image 28: 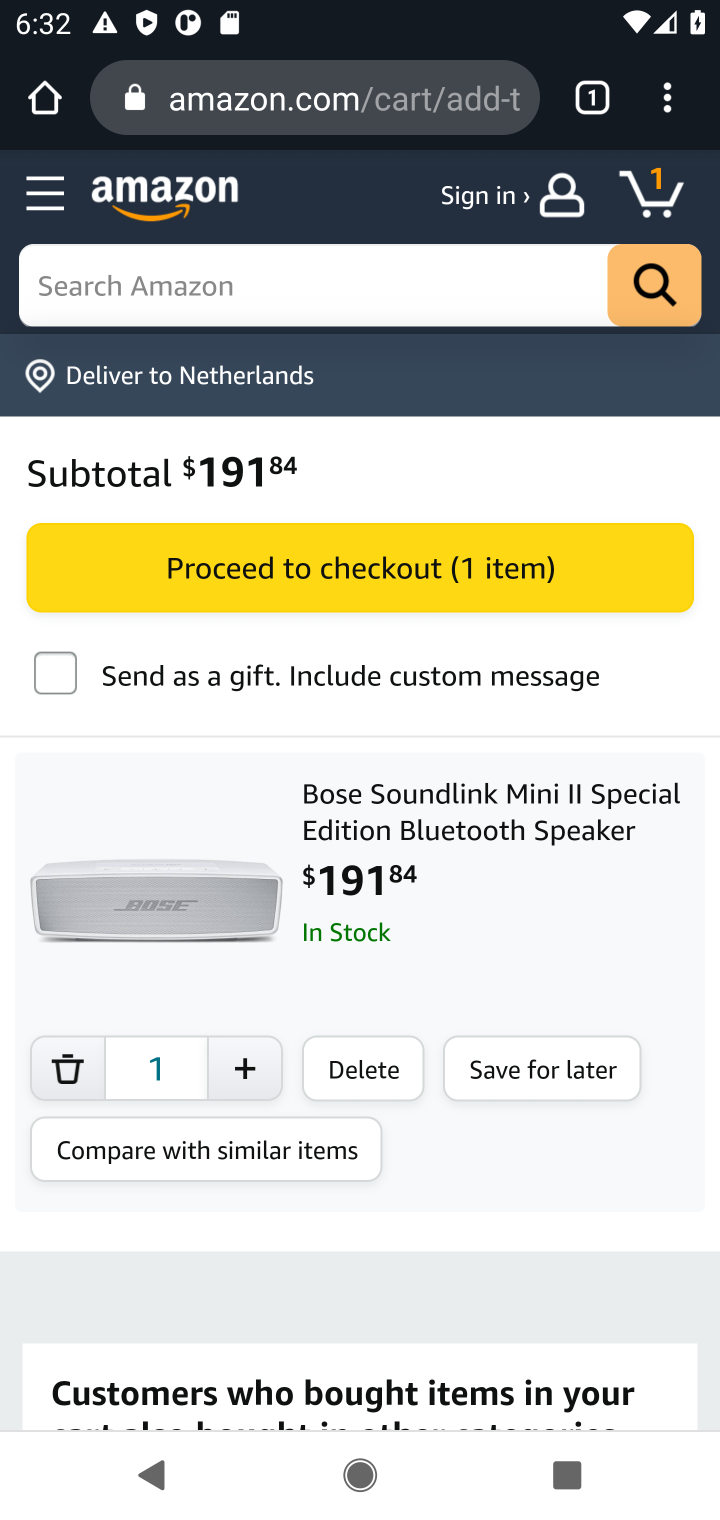
Step 28: task complete